Your task to perform on an android device: turn on showing notifications on the lock screen Image 0: 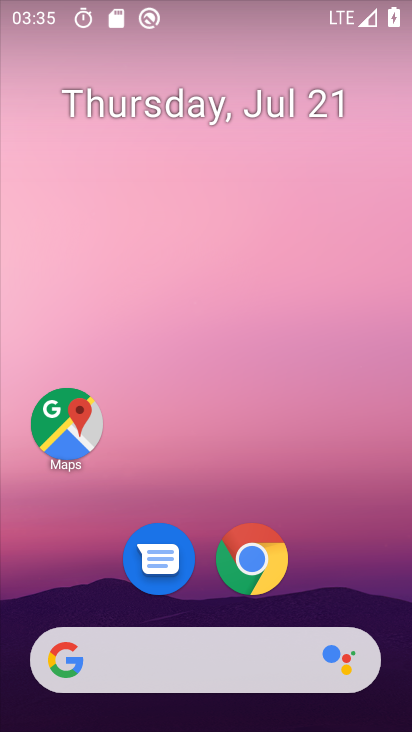
Step 0: press home button
Your task to perform on an android device: turn on showing notifications on the lock screen Image 1: 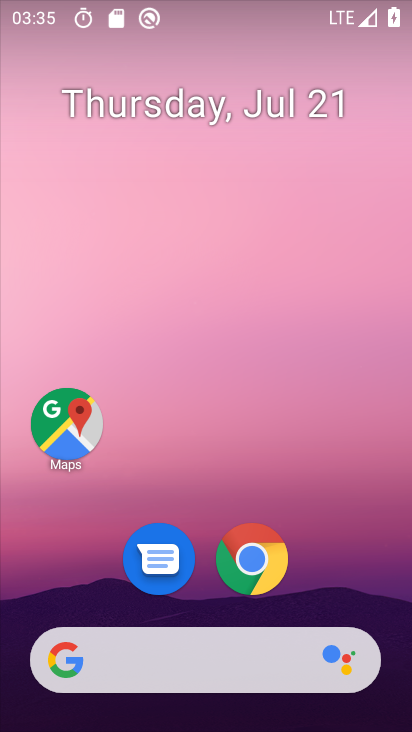
Step 1: drag from (331, 544) to (333, 110)
Your task to perform on an android device: turn on showing notifications on the lock screen Image 2: 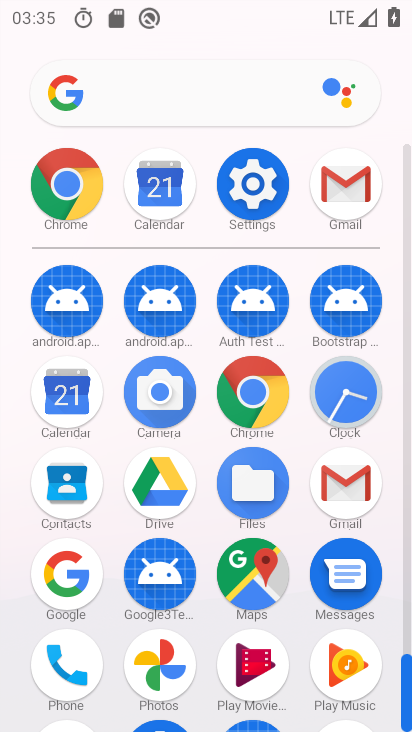
Step 2: click (270, 193)
Your task to perform on an android device: turn on showing notifications on the lock screen Image 3: 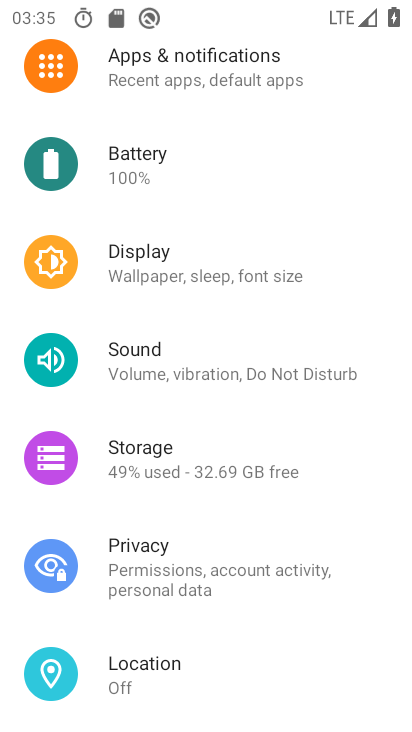
Step 3: drag from (375, 481) to (370, 400)
Your task to perform on an android device: turn on showing notifications on the lock screen Image 4: 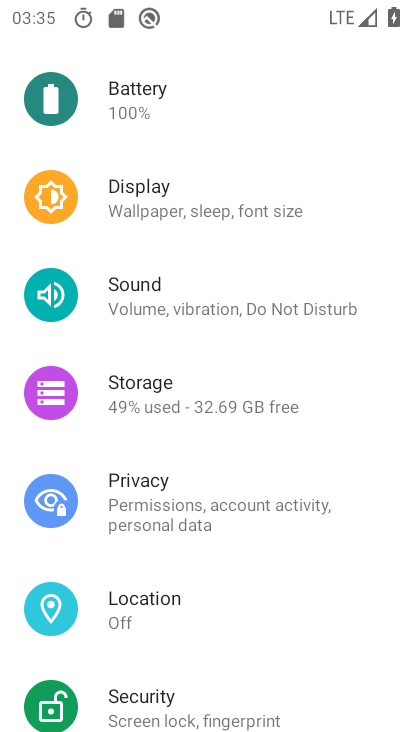
Step 4: drag from (365, 443) to (365, 379)
Your task to perform on an android device: turn on showing notifications on the lock screen Image 5: 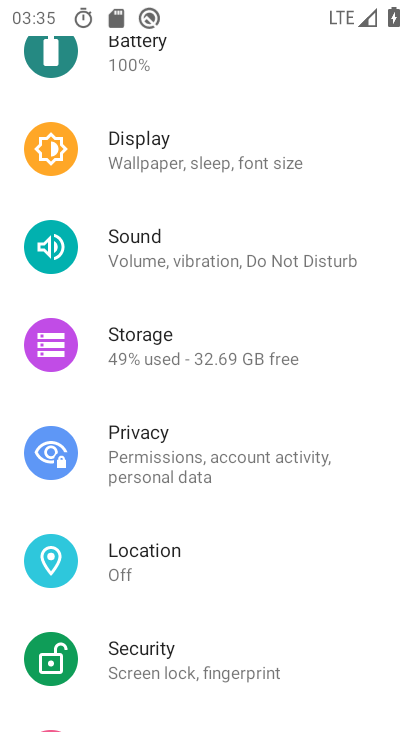
Step 5: drag from (353, 459) to (357, 388)
Your task to perform on an android device: turn on showing notifications on the lock screen Image 6: 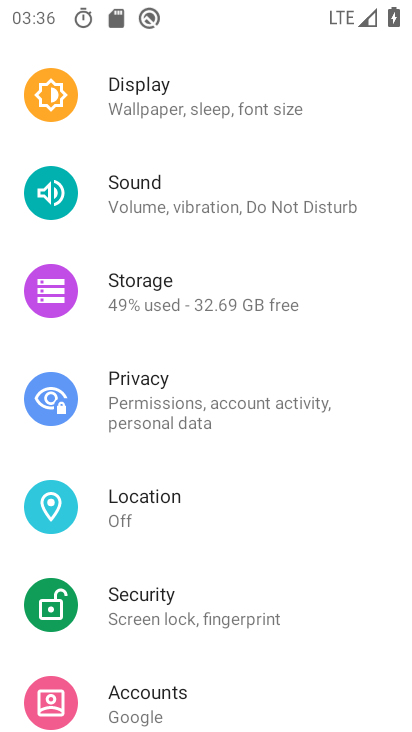
Step 6: drag from (346, 463) to (348, 374)
Your task to perform on an android device: turn on showing notifications on the lock screen Image 7: 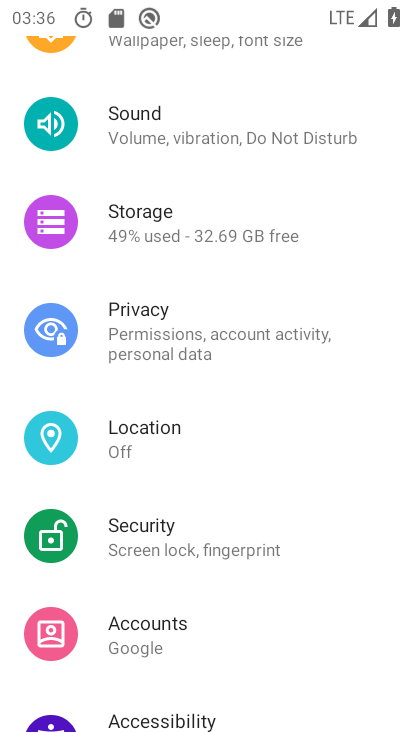
Step 7: drag from (350, 458) to (352, 375)
Your task to perform on an android device: turn on showing notifications on the lock screen Image 8: 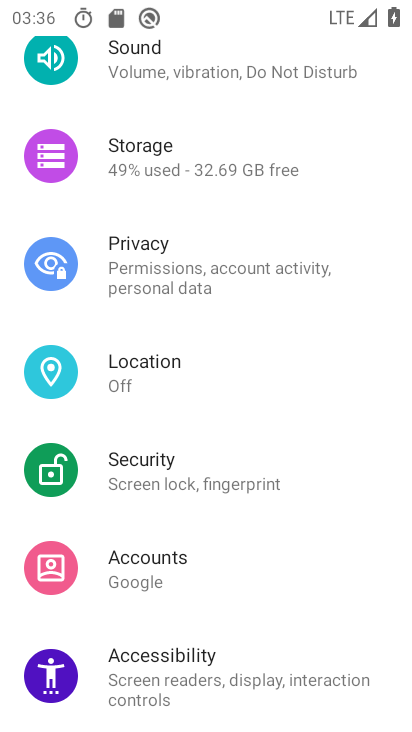
Step 8: drag from (337, 473) to (340, 337)
Your task to perform on an android device: turn on showing notifications on the lock screen Image 9: 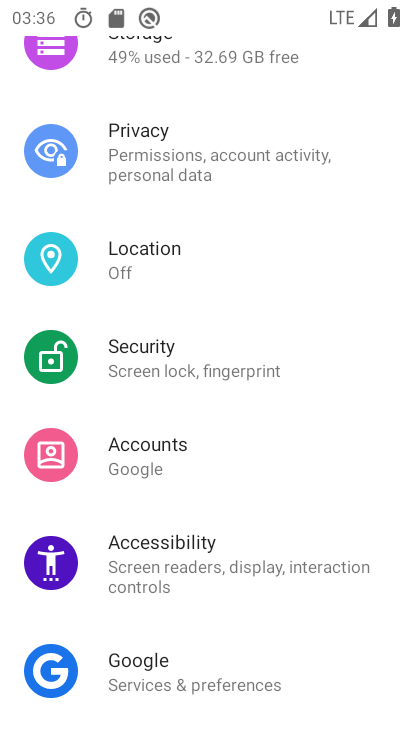
Step 9: drag from (345, 281) to (343, 367)
Your task to perform on an android device: turn on showing notifications on the lock screen Image 10: 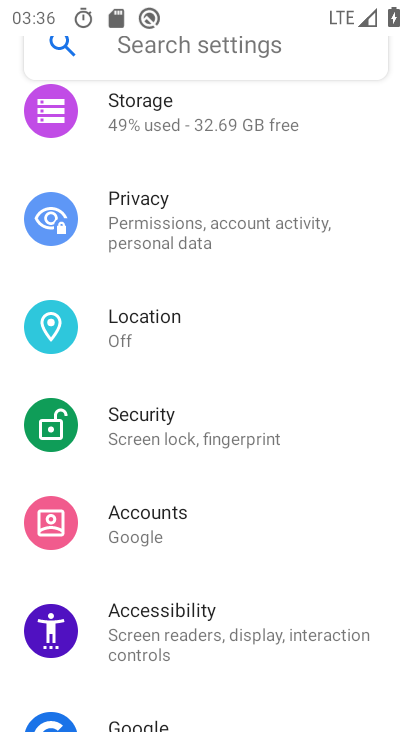
Step 10: drag from (349, 273) to (353, 372)
Your task to perform on an android device: turn on showing notifications on the lock screen Image 11: 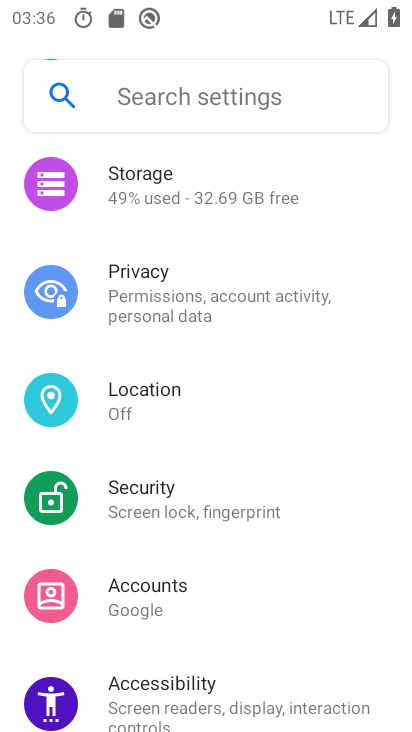
Step 11: drag from (353, 286) to (357, 375)
Your task to perform on an android device: turn on showing notifications on the lock screen Image 12: 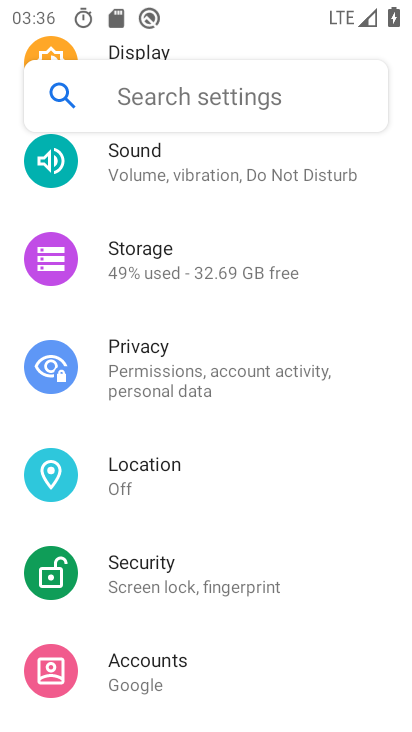
Step 12: drag from (353, 264) to (356, 364)
Your task to perform on an android device: turn on showing notifications on the lock screen Image 13: 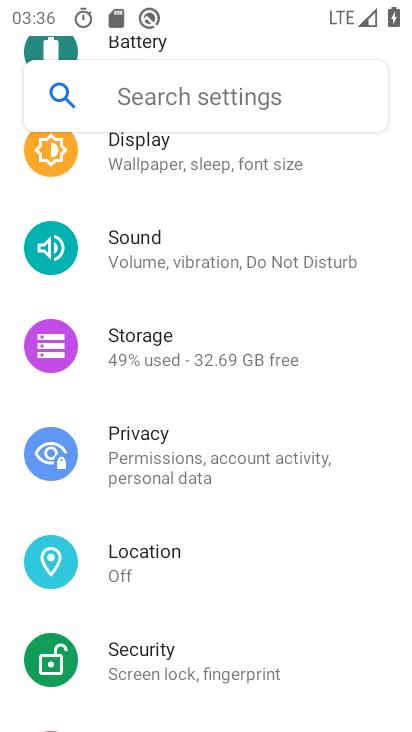
Step 13: drag from (364, 290) to (365, 362)
Your task to perform on an android device: turn on showing notifications on the lock screen Image 14: 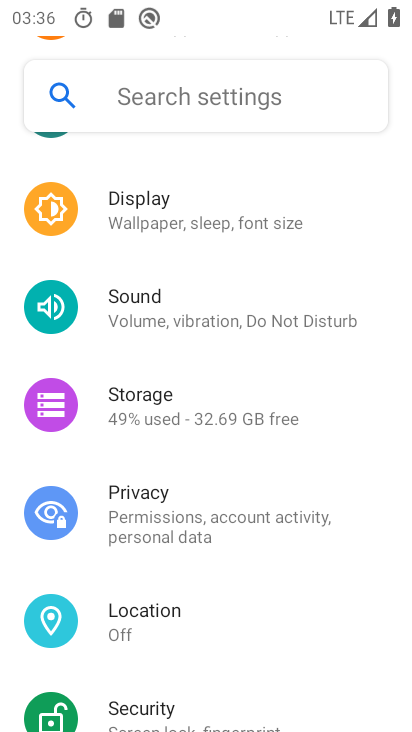
Step 14: drag from (374, 287) to (375, 351)
Your task to perform on an android device: turn on showing notifications on the lock screen Image 15: 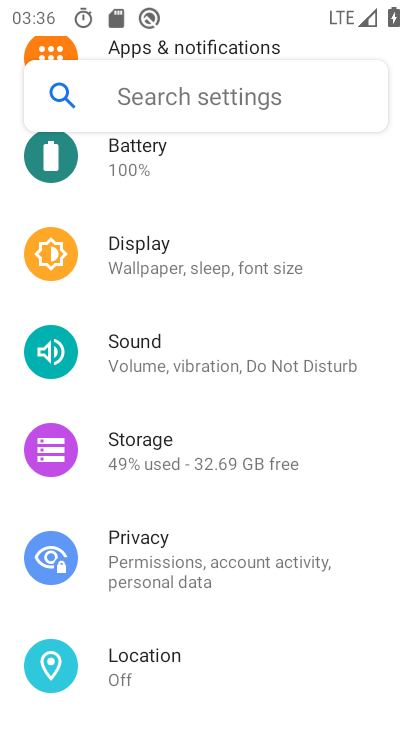
Step 15: drag from (374, 273) to (372, 352)
Your task to perform on an android device: turn on showing notifications on the lock screen Image 16: 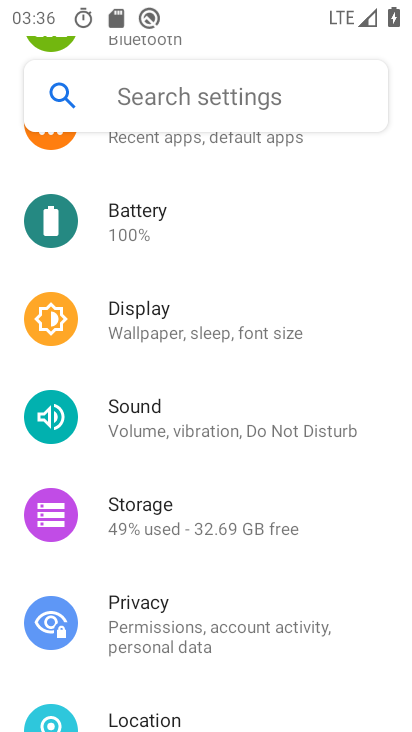
Step 16: drag from (368, 272) to (367, 366)
Your task to perform on an android device: turn on showing notifications on the lock screen Image 17: 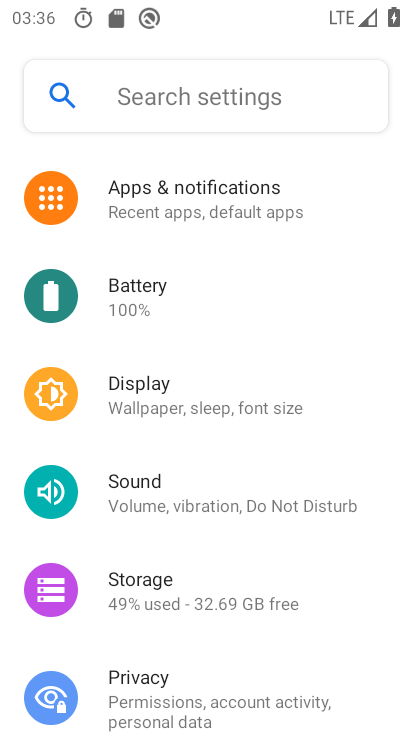
Step 17: drag from (360, 272) to (353, 343)
Your task to perform on an android device: turn on showing notifications on the lock screen Image 18: 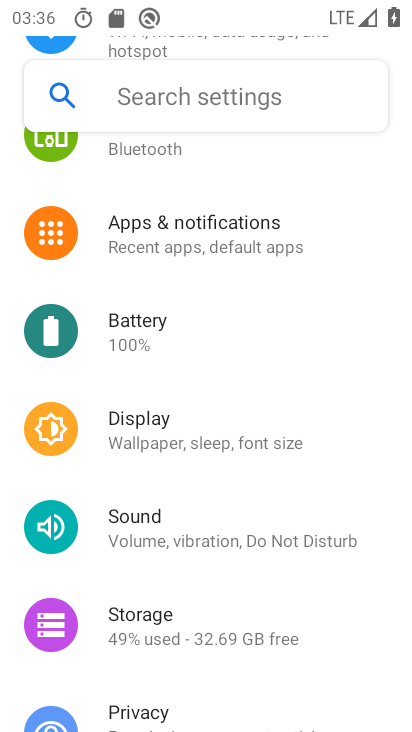
Step 18: drag from (345, 261) to (347, 409)
Your task to perform on an android device: turn on showing notifications on the lock screen Image 19: 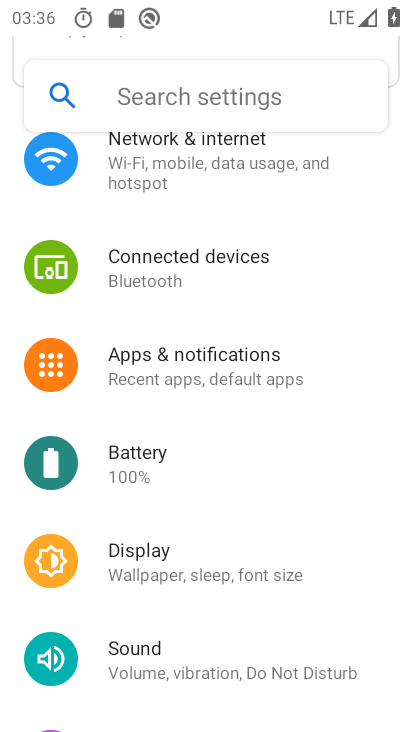
Step 19: click (332, 384)
Your task to perform on an android device: turn on showing notifications on the lock screen Image 20: 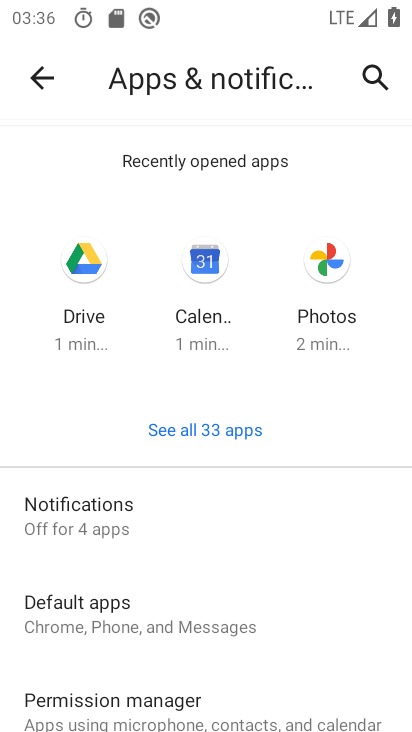
Step 20: click (168, 525)
Your task to perform on an android device: turn on showing notifications on the lock screen Image 21: 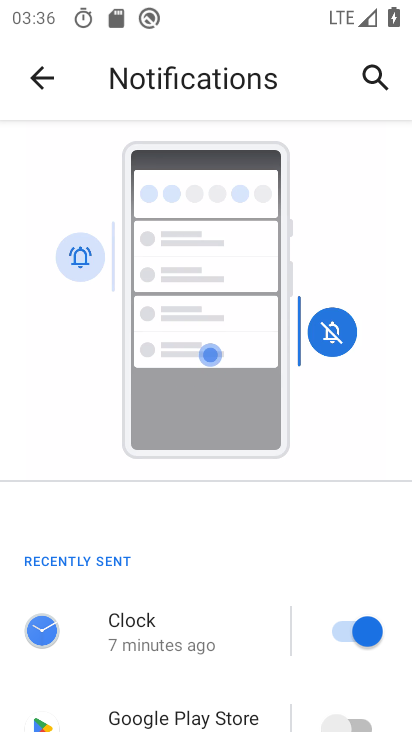
Step 21: drag from (262, 536) to (269, 465)
Your task to perform on an android device: turn on showing notifications on the lock screen Image 22: 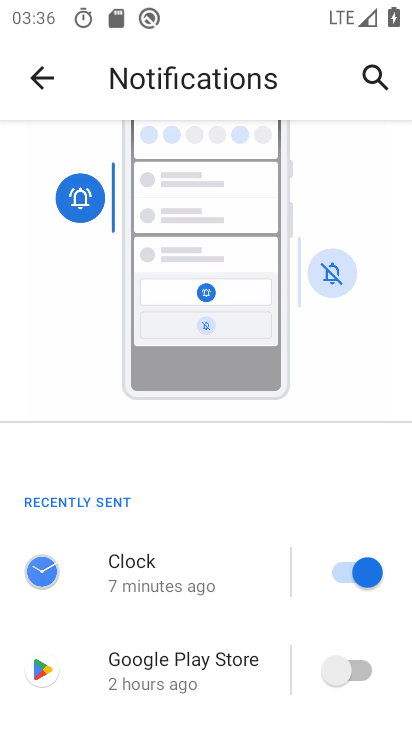
Step 22: drag from (258, 535) to (261, 462)
Your task to perform on an android device: turn on showing notifications on the lock screen Image 23: 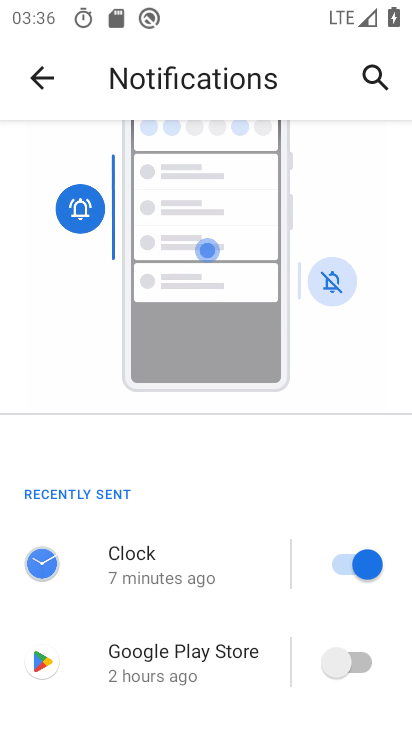
Step 23: drag from (255, 556) to (255, 434)
Your task to perform on an android device: turn on showing notifications on the lock screen Image 24: 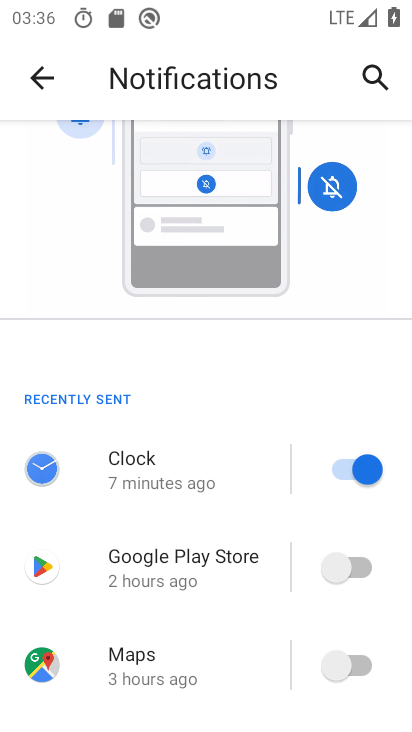
Step 24: drag from (254, 570) to (256, 485)
Your task to perform on an android device: turn on showing notifications on the lock screen Image 25: 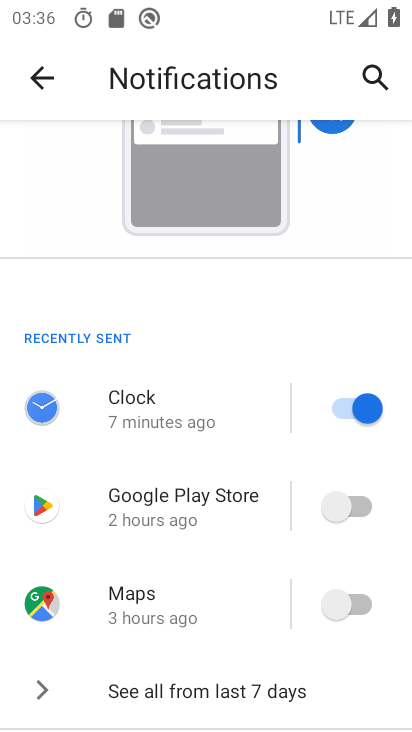
Step 25: drag from (255, 562) to (255, 442)
Your task to perform on an android device: turn on showing notifications on the lock screen Image 26: 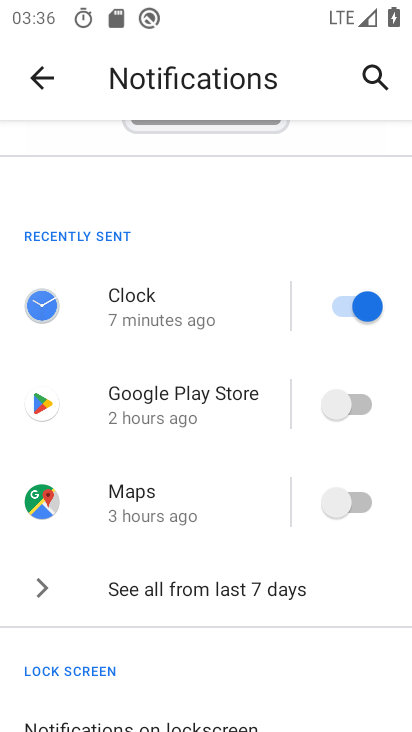
Step 26: drag from (251, 547) to (251, 400)
Your task to perform on an android device: turn on showing notifications on the lock screen Image 27: 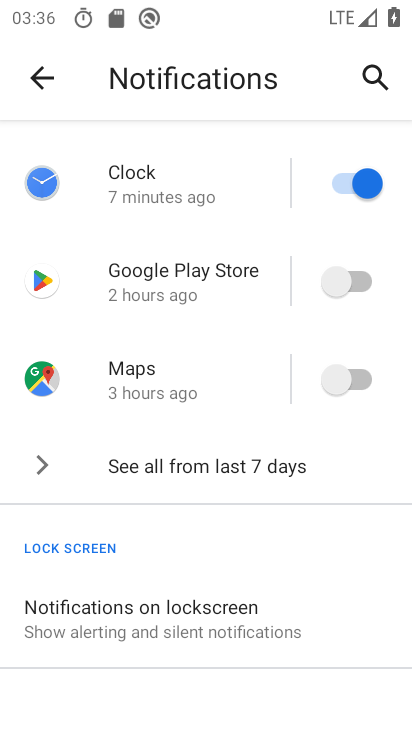
Step 27: click (251, 587)
Your task to perform on an android device: turn on showing notifications on the lock screen Image 28: 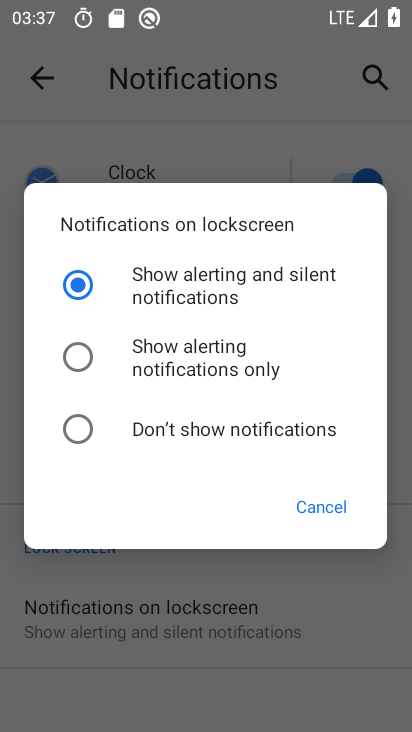
Step 28: task complete